Your task to perform on an android device: Open settings on Google Maps Image 0: 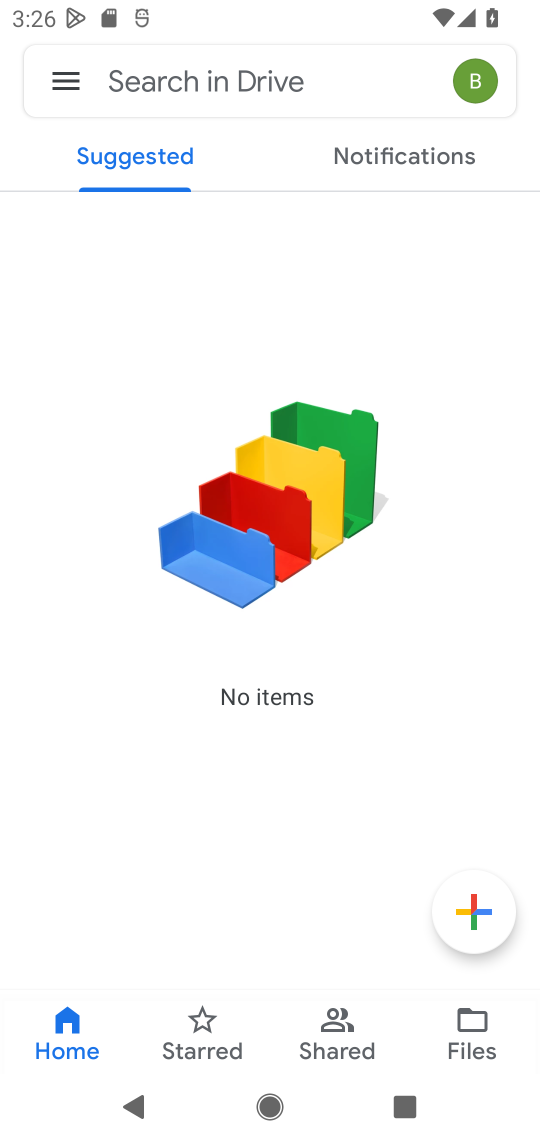
Step 0: press home button
Your task to perform on an android device: Open settings on Google Maps Image 1: 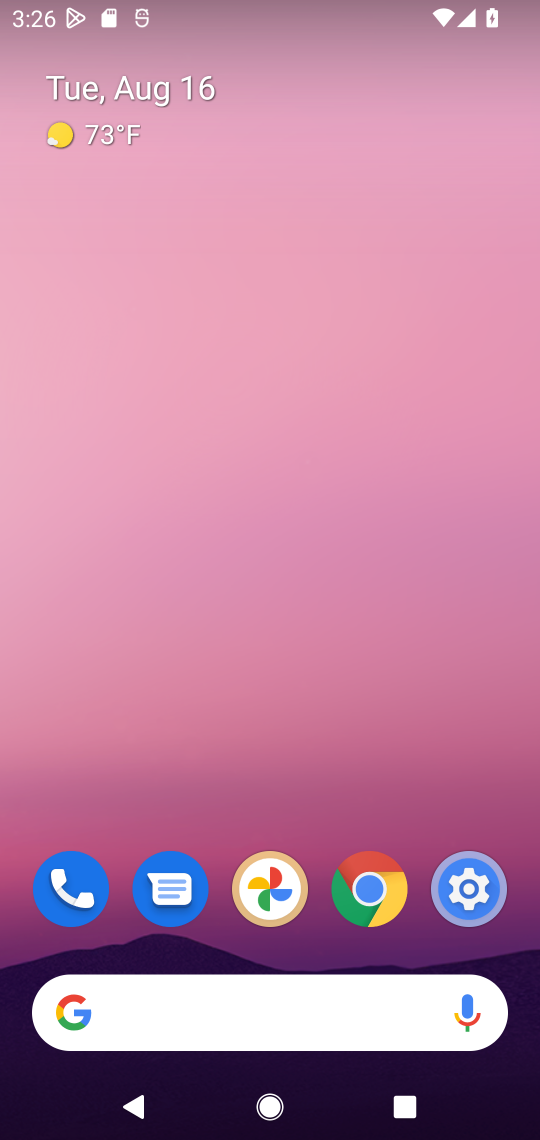
Step 1: drag from (299, 828) to (288, 12)
Your task to perform on an android device: Open settings on Google Maps Image 2: 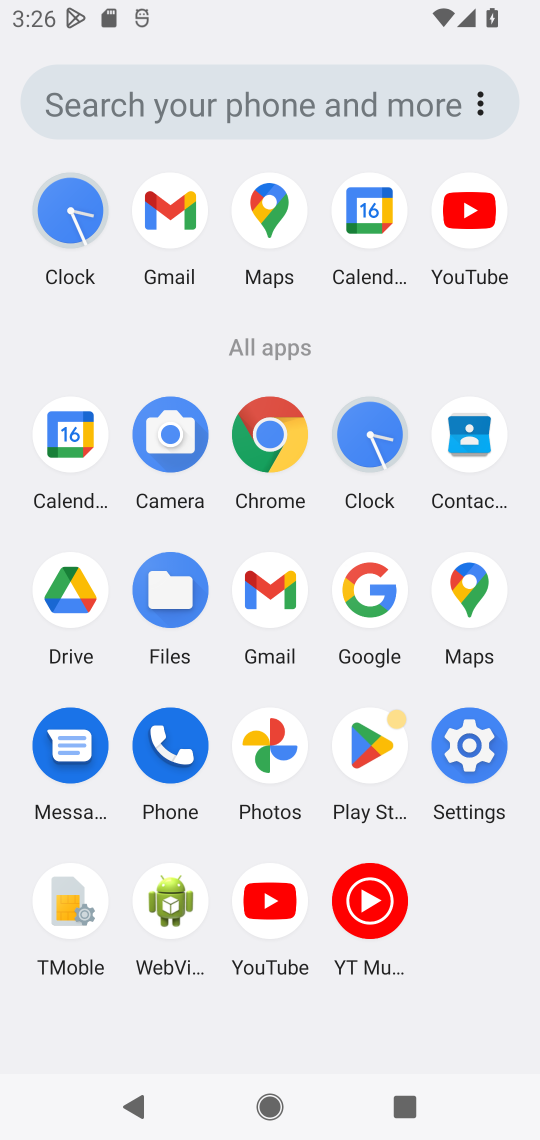
Step 2: click (461, 593)
Your task to perform on an android device: Open settings on Google Maps Image 3: 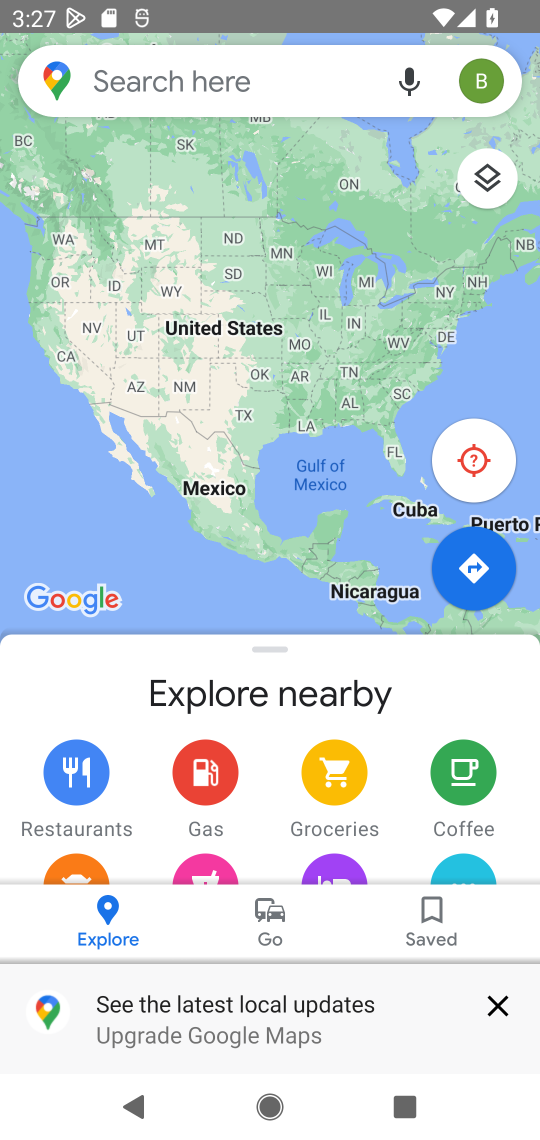
Step 3: task complete